Your task to perform on an android device: turn on javascript in the chrome app Image 0: 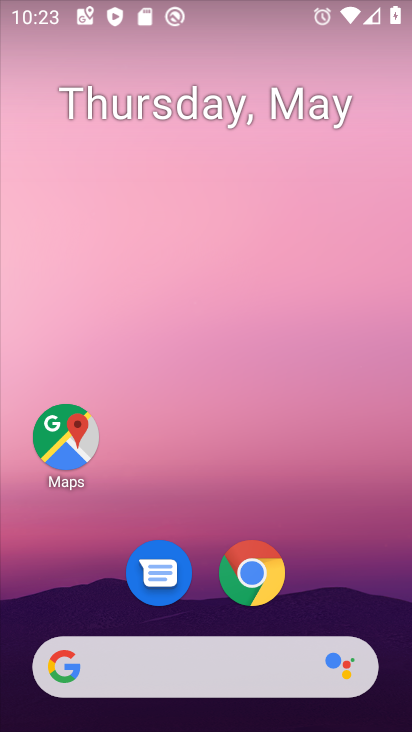
Step 0: click (250, 559)
Your task to perform on an android device: turn on javascript in the chrome app Image 1: 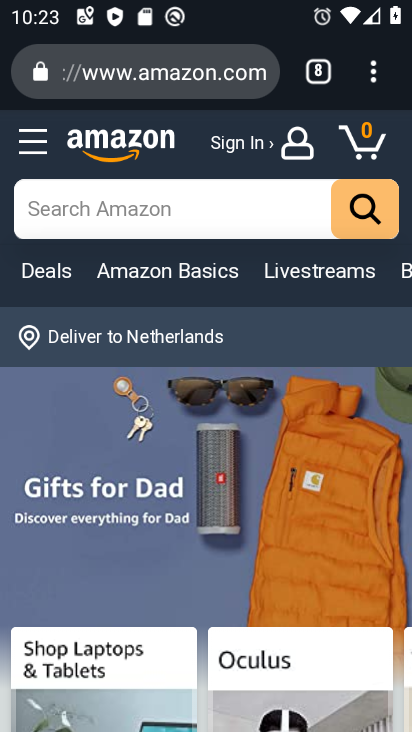
Step 1: drag from (364, 57) to (192, 563)
Your task to perform on an android device: turn on javascript in the chrome app Image 2: 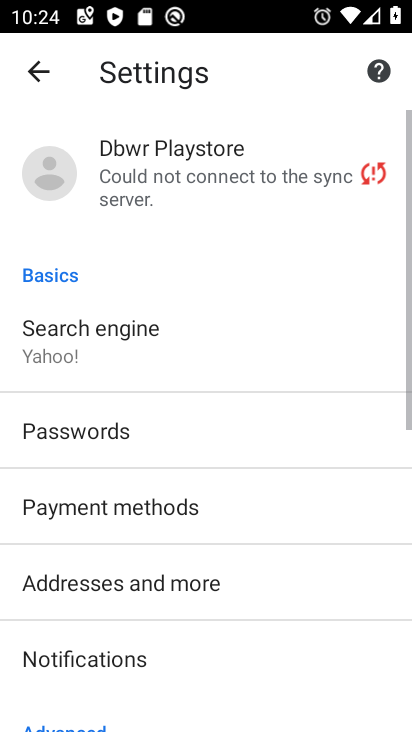
Step 2: drag from (217, 572) to (233, 312)
Your task to perform on an android device: turn on javascript in the chrome app Image 3: 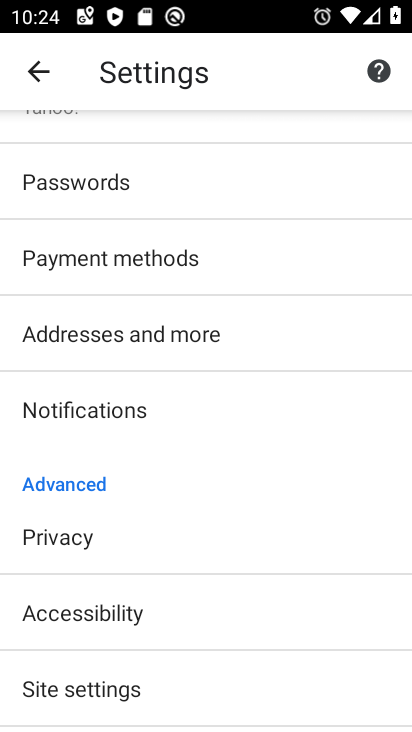
Step 3: drag from (167, 625) to (214, 252)
Your task to perform on an android device: turn on javascript in the chrome app Image 4: 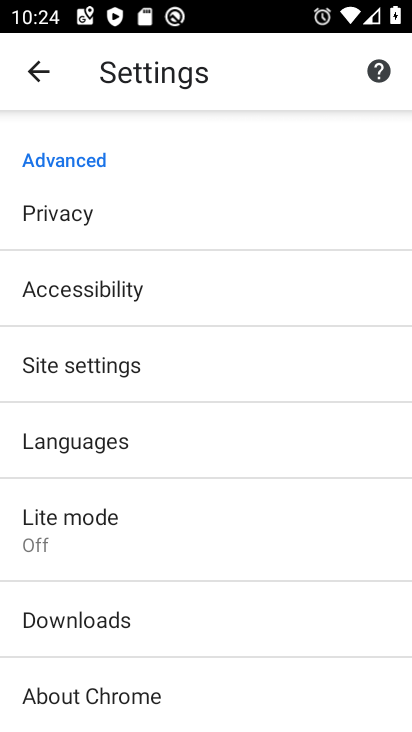
Step 4: drag from (171, 635) to (176, 327)
Your task to perform on an android device: turn on javascript in the chrome app Image 5: 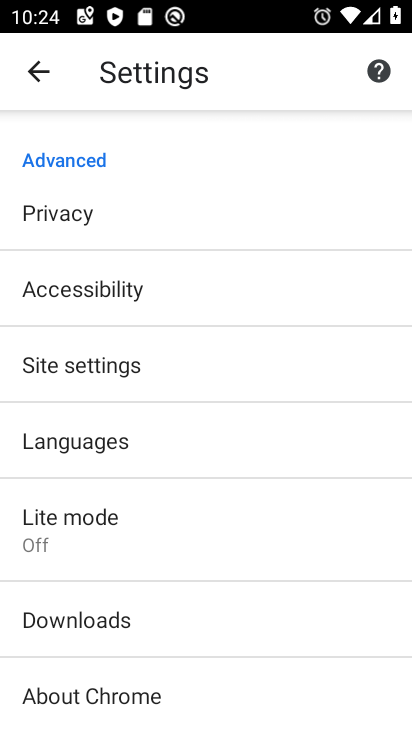
Step 5: click (138, 371)
Your task to perform on an android device: turn on javascript in the chrome app Image 6: 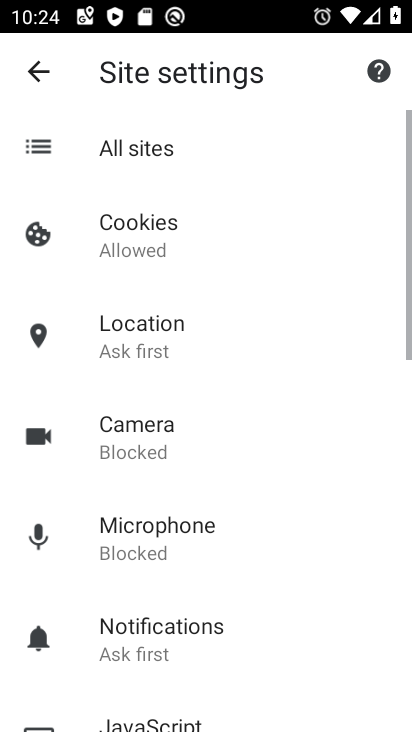
Step 6: drag from (301, 525) to (308, 246)
Your task to perform on an android device: turn on javascript in the chrome app Image 7: 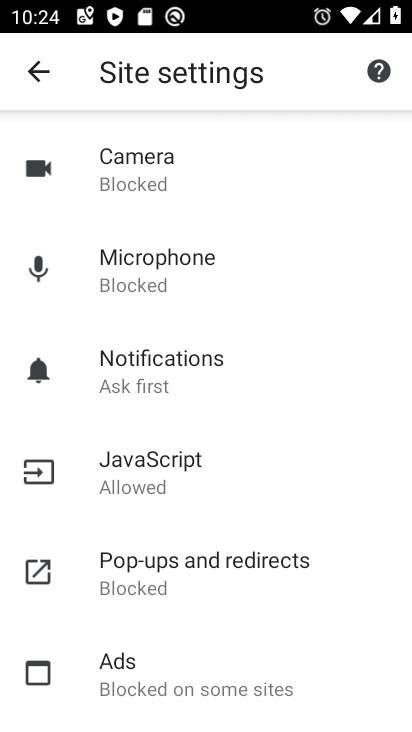
Step 7: click (240, 489)
Your task to perform on an android device: turn on javascript in the chrome app Image 8: 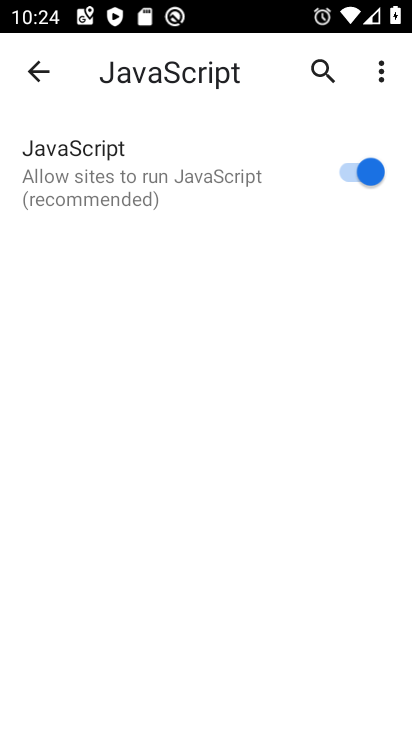
Step 8: task complete